Your task to perform on an android device: clear all cookies in the chrome app Image 0: 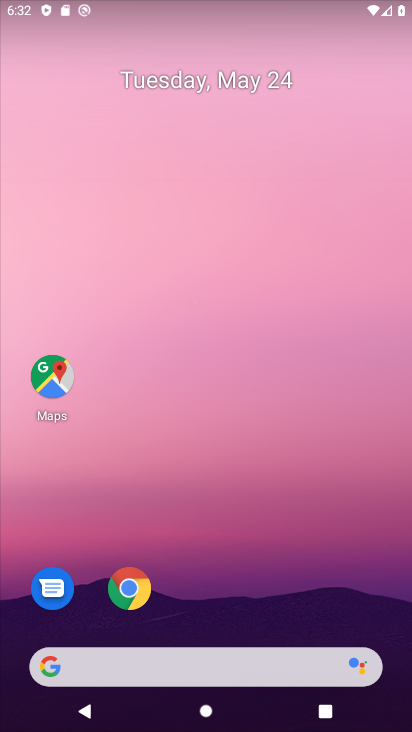
Step 0: drag from (273, 706) to (325, 0)
Your task to perform on an android device: clear all cookies in the chrome app Image 1: 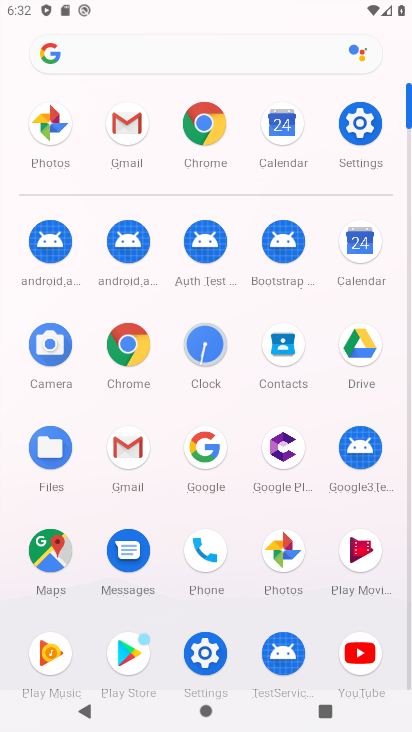
Step 1: click (129, 369)
Your task to perform on an android device: clear all cookies in the chrome app Image 2: 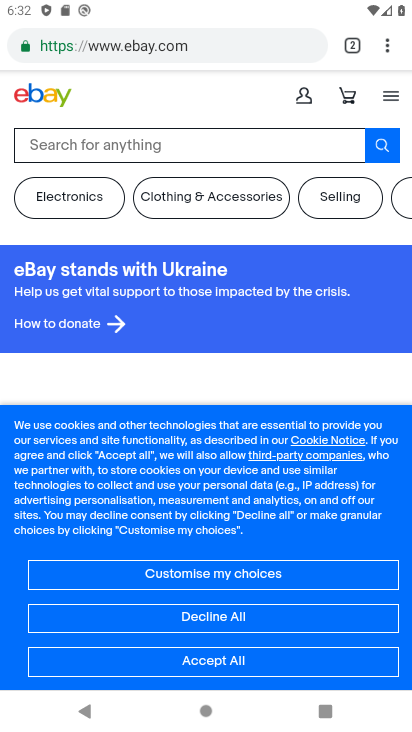
Step 2: drag from (390, 38) to (249, 557)
Your task to perform on an android device: clear all cookies in the chrome app Image 3: 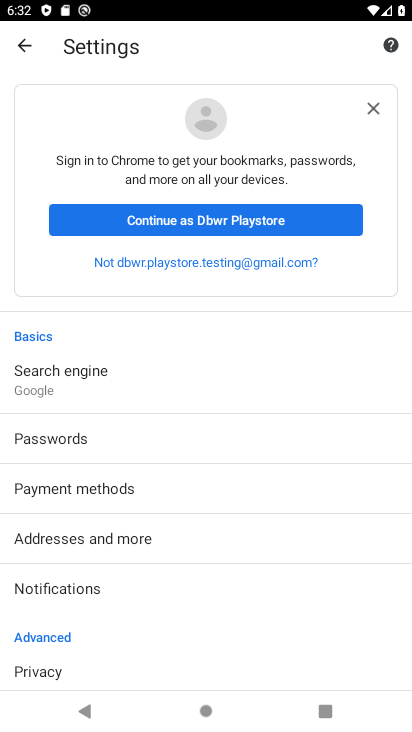
Step 3: drag from (185, 589) to (328, 97)
Your task to perform on an android device: clear all cookies in the chrome app Image 4: 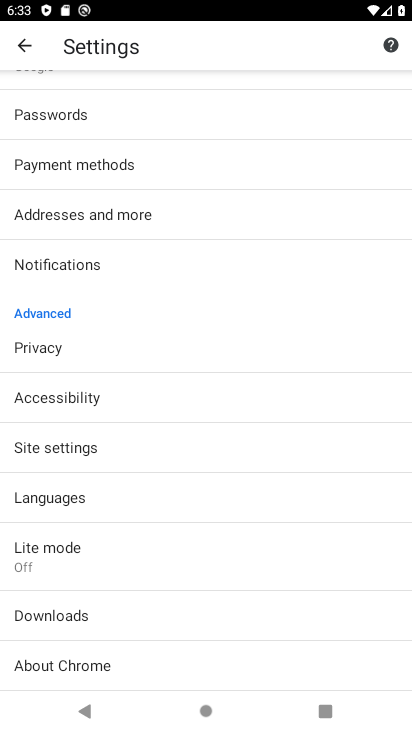
Step 4: click (75, 355)
Your task to perform on an android device: clear all cookies in the chrome app Image 5: 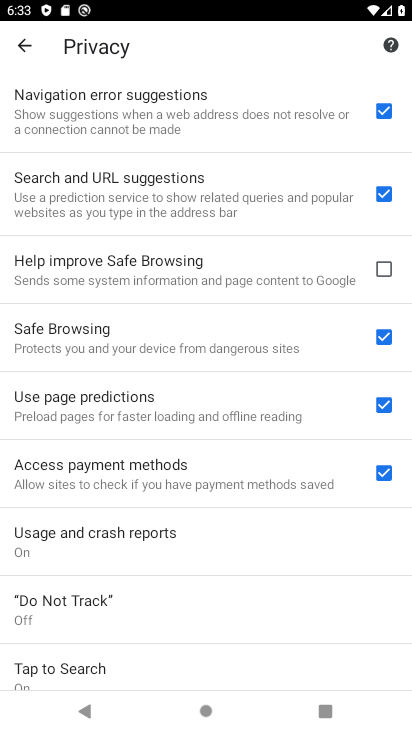
Step 5: drag from (173, 658) to (306, 210)
Your task to perform on an android device: clear all cookies in the chrome app Image 6: 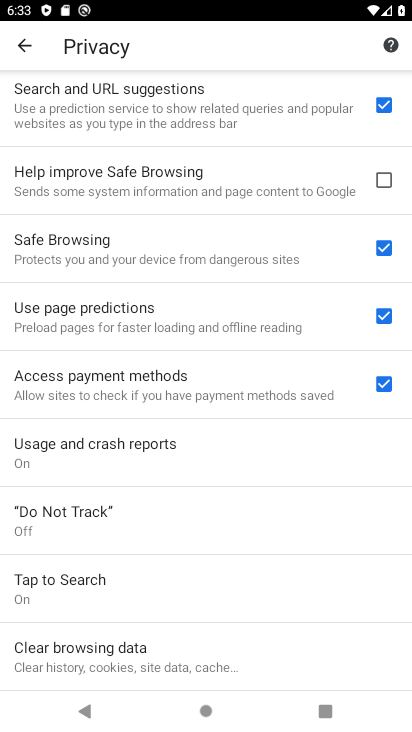
Step 6: click (202, 666)
Your task to perform on an android device: clear all cookies in the chrome app Image 7: 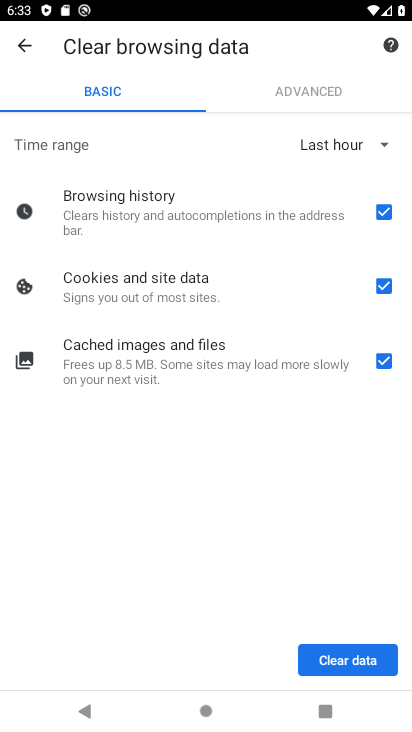
Step 7: click (333, 649)
Your task to perform on an android device: clear all cookies in the chrome app Image 8: 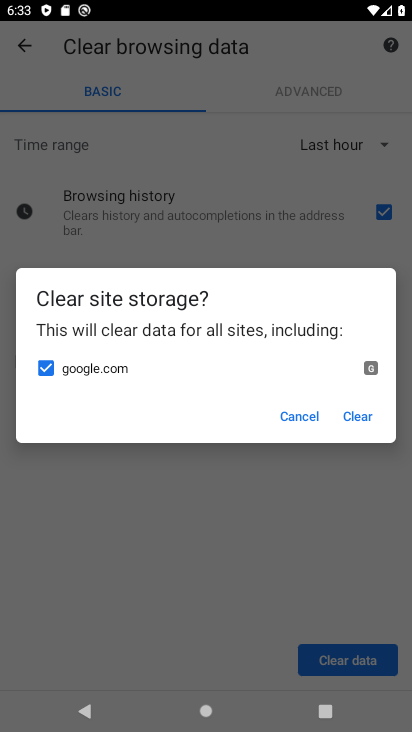
Step 8: click (348, 405)
Your task to perform on an android device: clear all cookies in the chrome app Image 9: 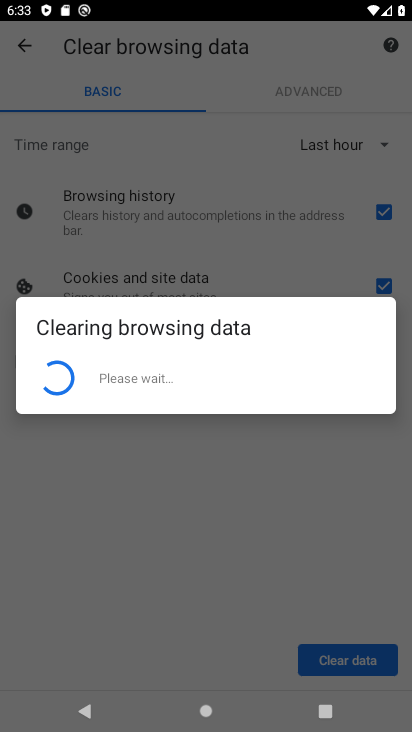
Step 9: task complete